Your task to perform on an android device: turn on location history Image 0: 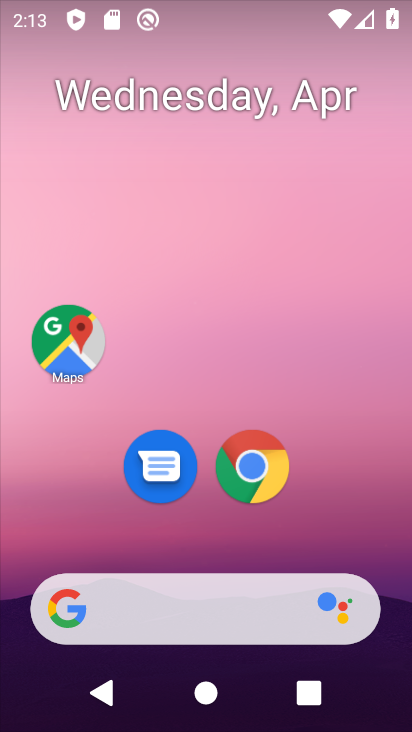
Step 0: drag from (276, 594) to (265, 256)
Your task to perform on an android device: turn on location history Image 1: 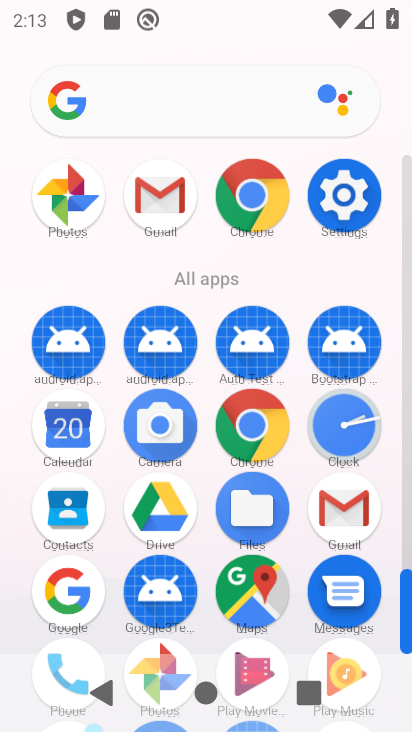
Step 1: click (342, 203)
Your task to perform on an android device: turn on location history Image 2: 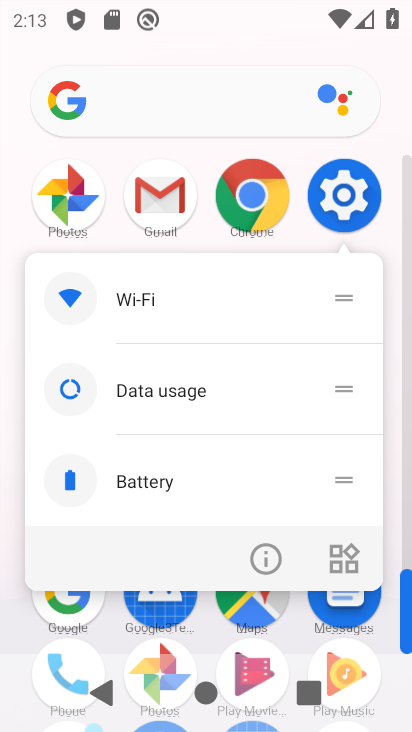
Step 2: click (341, 203)
Your task to perform on an android device: turn on location history Image 3: 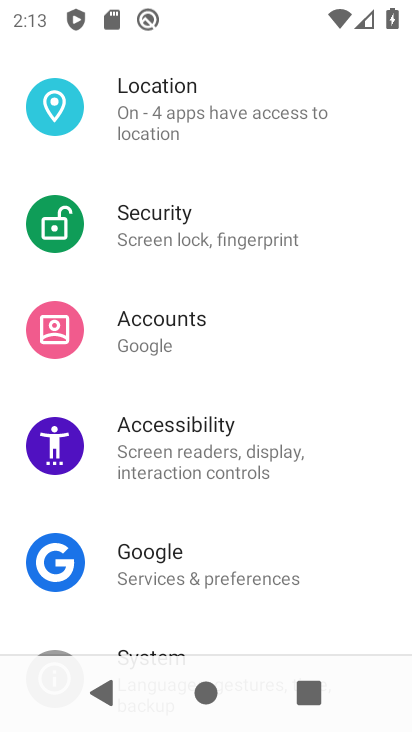
Step 3: click (247, 98)
Your task to perform on an android device: turn on location history Image 4: 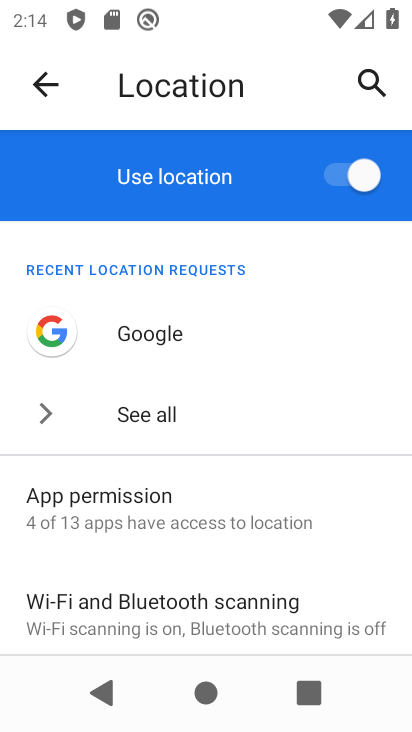
Step 4: drag from (240, 511) to (254, 238)
Your task to perform on an android device: turn on location history Image 5: 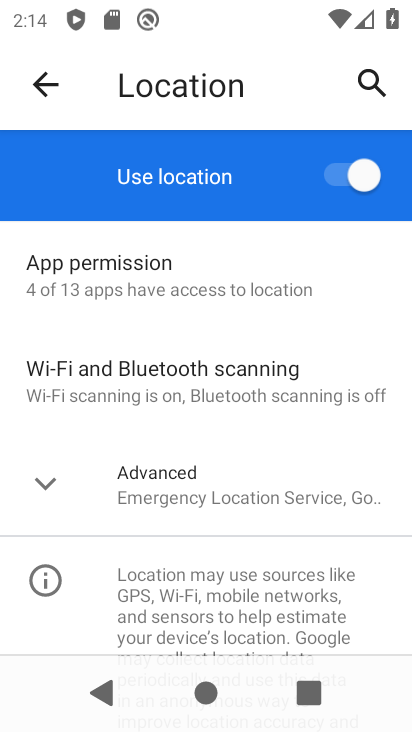
Step 5: click (197, 475)
Your task to perform on an android device: turn on location history Image 6: 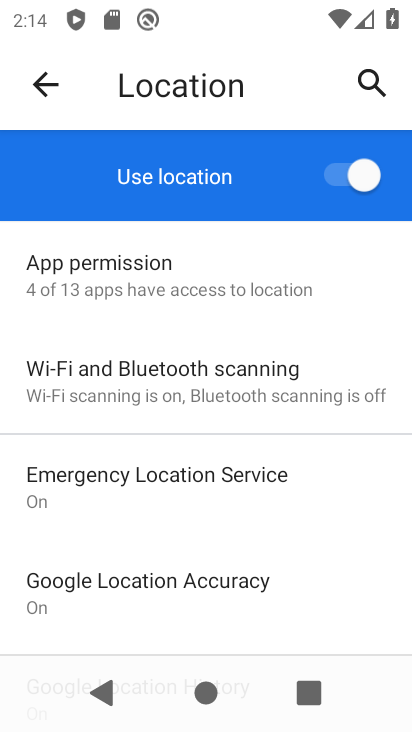
Step 6: drag from (250, 571) to (243, 253)
Your task to perform on an android device: turn on location history Image 7: 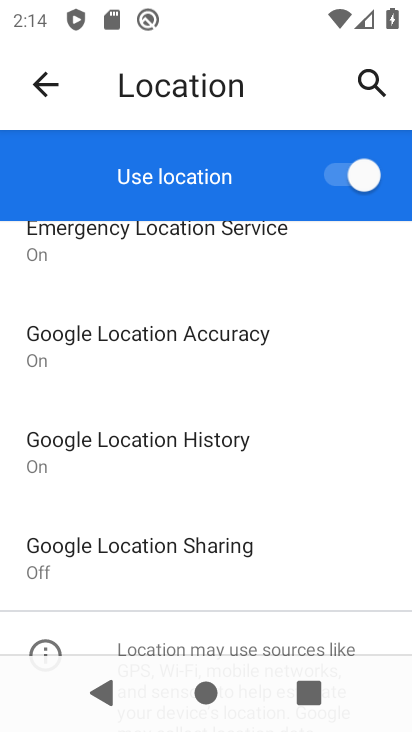
Step 7: click (223, 446)
Your task to perform on an android device: turn on location history Image 8: 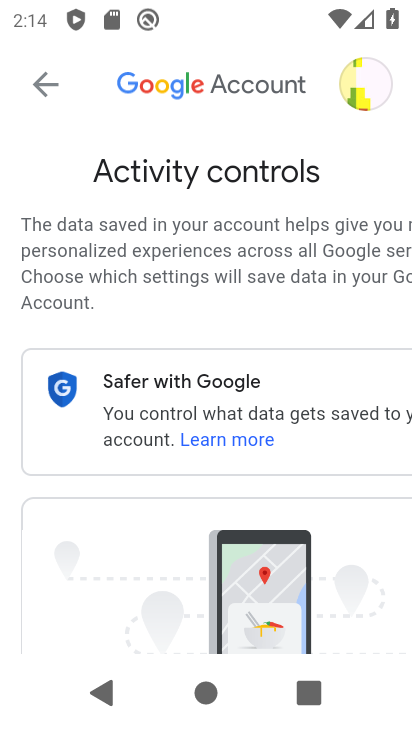
Step 8: task complete